Your task to perform on an android device: change text size in settings app Image 0: 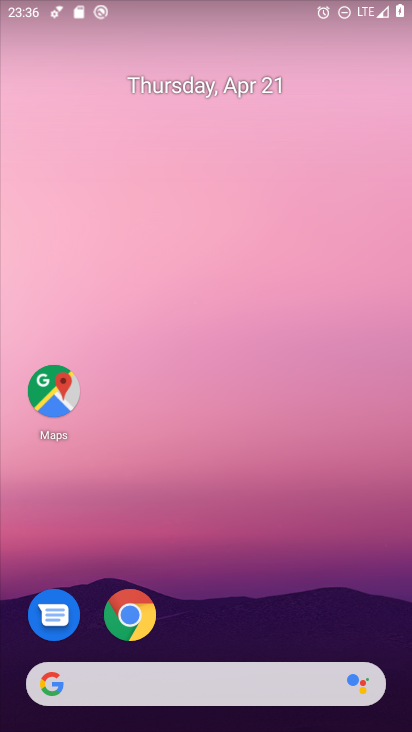
Step 0: drag from (204, 592) to (235, 80)
Your task to perform on an android device: change text size in settings app Image 1: 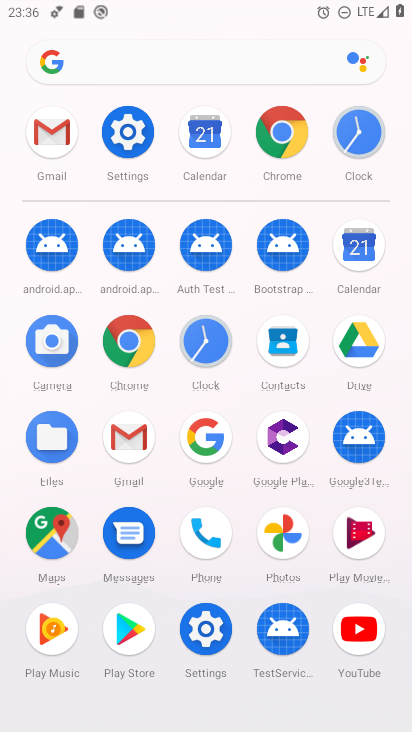
Step 1: click (124, 125)
Your task to perform on an android device: change text size in settings app Image 2: 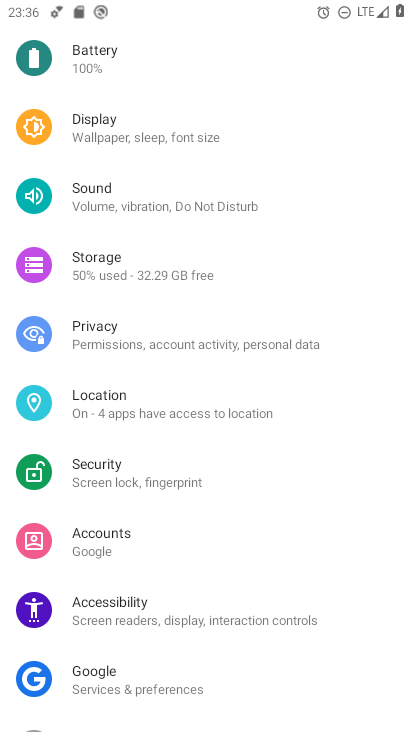
Step 2: click (122, 127)
Your task to perform on an android device: change text size in settings app Image 3: 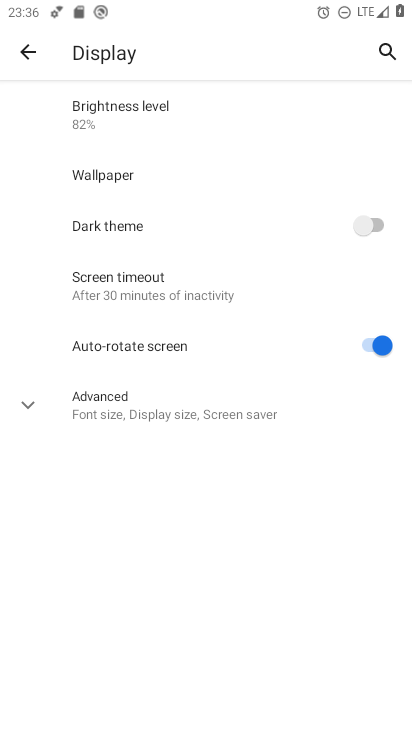
Step 3: click (27, 396)
Your task to perform on an android device: change text size in settings app Image 4: 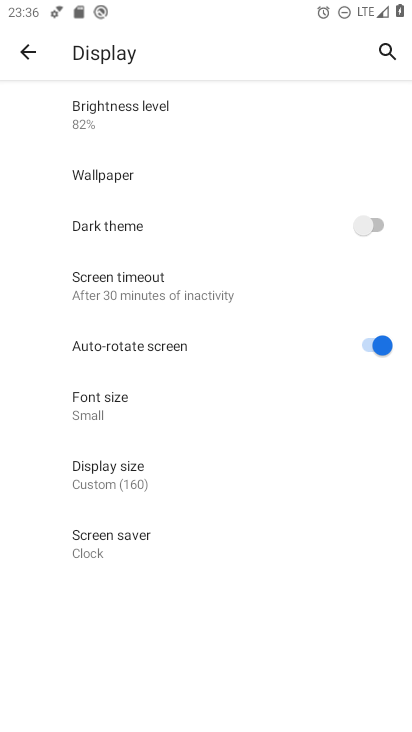
Step 4: click (133, 409)
Your task to perform on an android device: change text size in settings app Image 5: 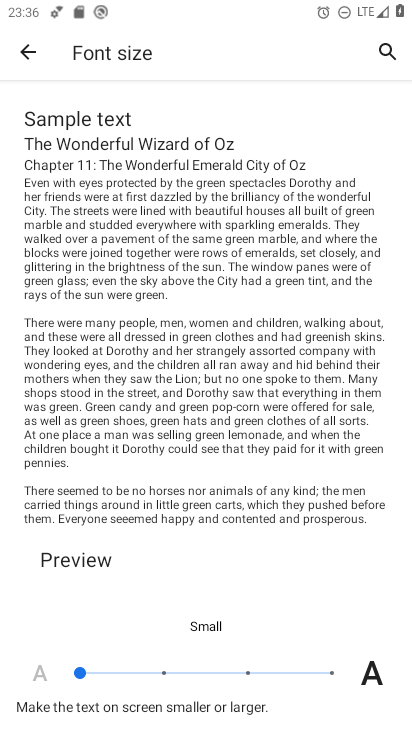
Step 5: click (159, 668)
Your task to perform on an android device: change text size in settings app Image 6: 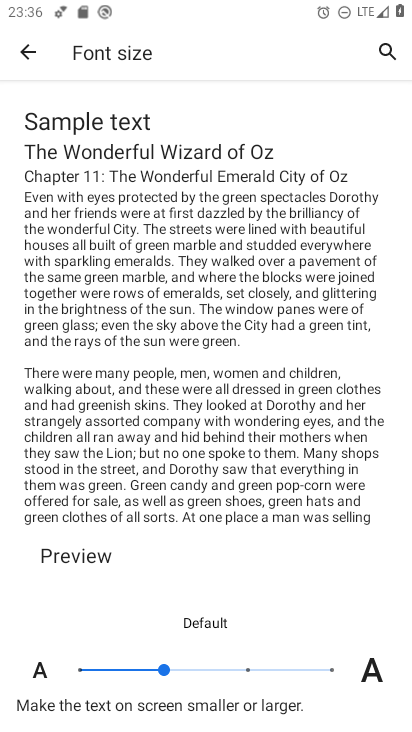
Step 6: task complete